Your task to perform on an android device: change the clock style Image 0: 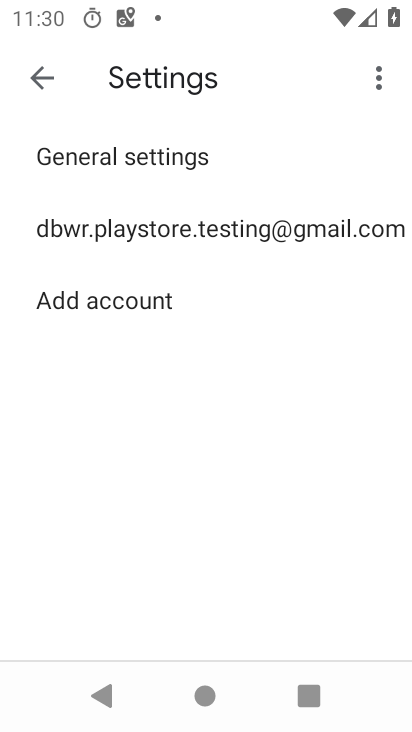
Step 0: press home button
Your task to perform on an android device: change the clock style Image 1: 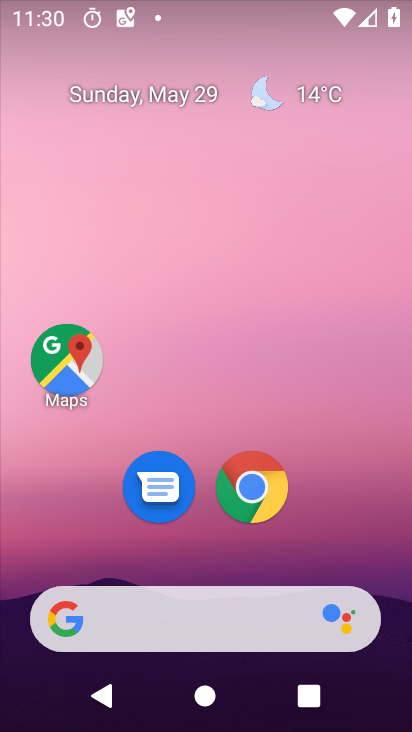
Step 1: drag from (396, 688) to (371, 164)
Your task to perform on an android device: change the clock style Image 2: 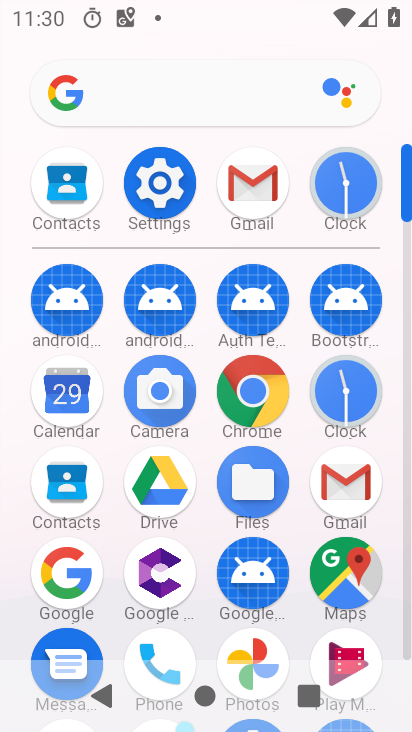
Step 2: click (321, 399)
Your task to perform on an android device: change the clock style Image 3: 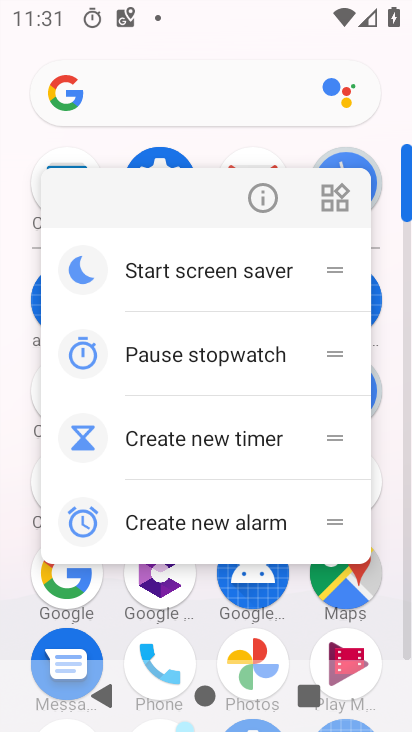
Step 3: press back button
Your task to perform on an android device: change the clock style Image 4: 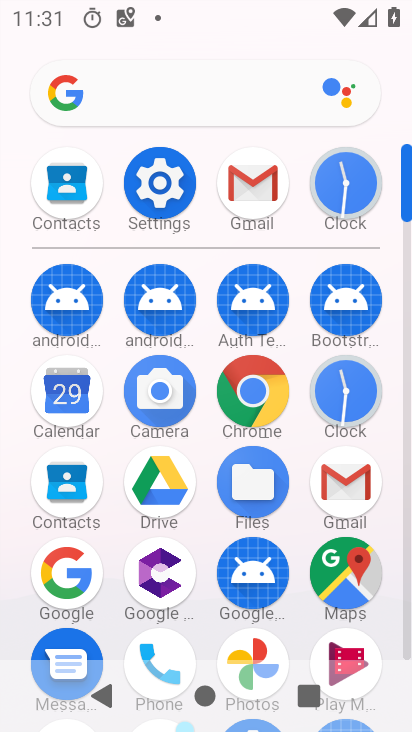
Step 4: click (353, 390)
Your task to perform on an android device: change the clock style Image 5: 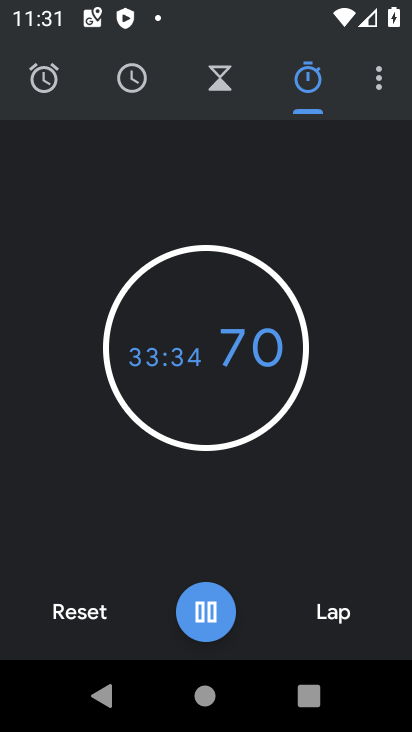
Step 5: click (371, 75)
Your task to perform on an android device: change the clock style Image 6: 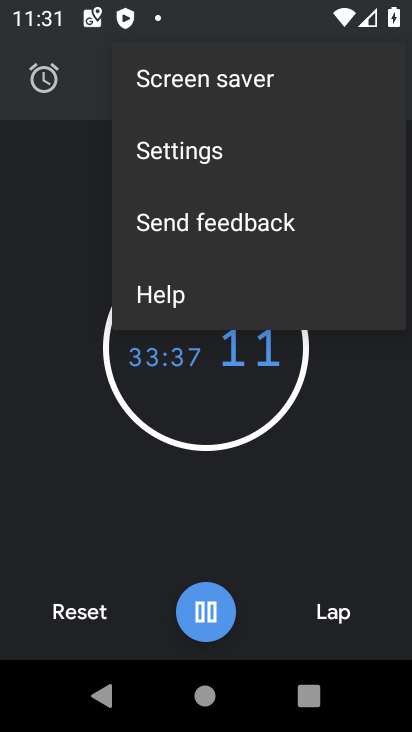
Step 6: click (177, 151)
Your task to perform on an android device: change the clock style Image 7: 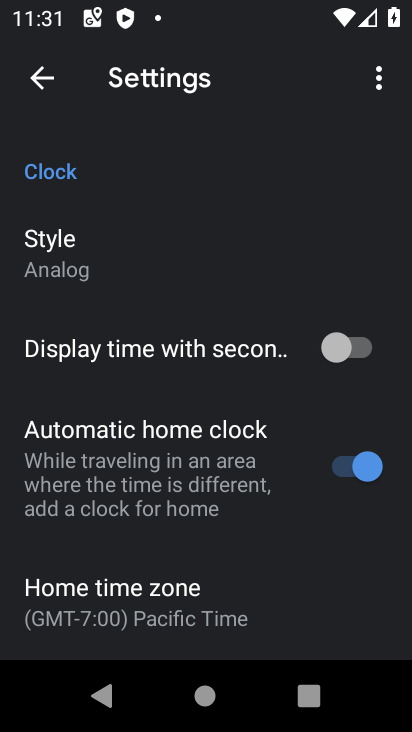
Step 7: drag from (281, 575) to (298, 232)
Your task to perform on an android device: change the clock style Image 8: 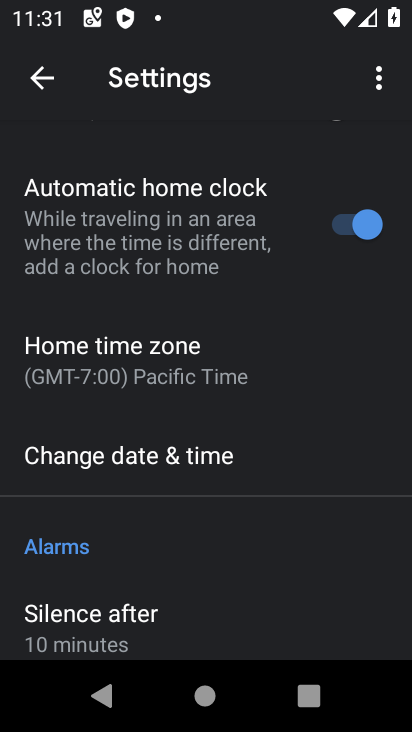
Step 8: drag from (243, 572) to (248, 351)
Your task to perform on an android device: change the clock style Image 9: 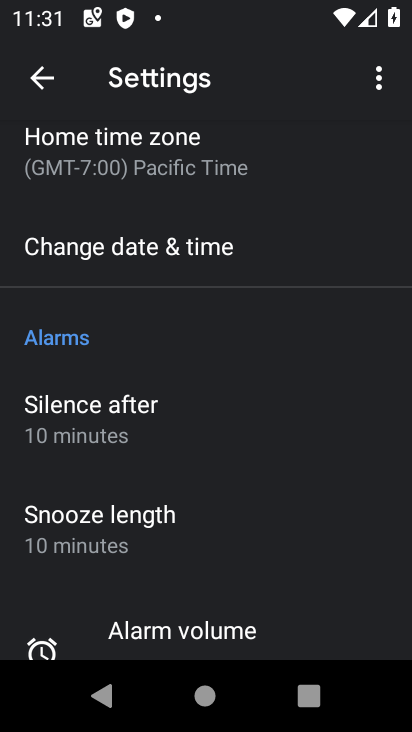
Step 9: drag from (263, 152) to (282, 600)
Your task to perform on an android device: change the clock style Image 10: 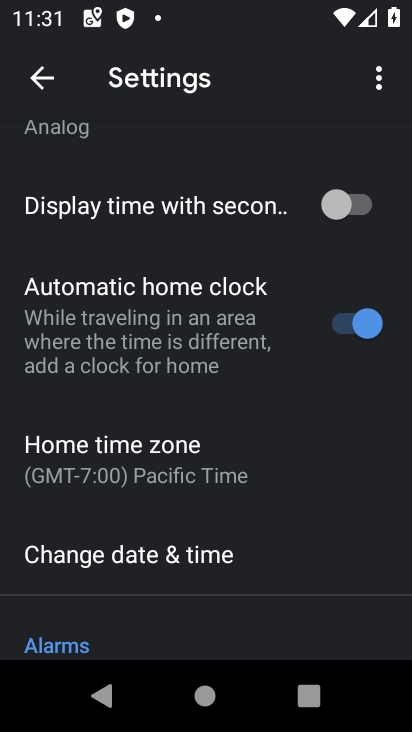
Step 10: drag from (269, 138) to (293, 566)
Your task to perform on an android device: change the clock style Image 11: 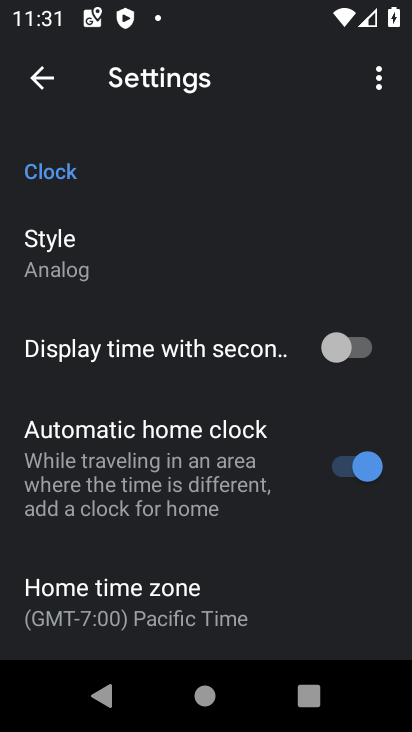
Step 11: drag from (257, 243) to (252, 529)
Your task to perform on an android device: change the clock style Image 12: 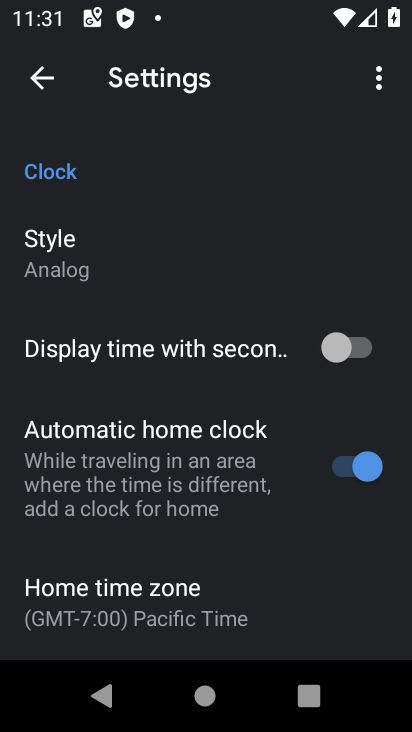
Step 12: click (83, 259)
Your task to perform on an android device: change the clock style Image 13: 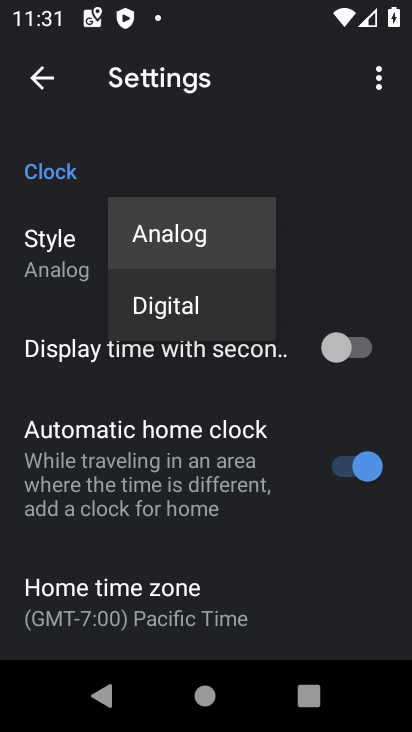
Step 13: click (169, 308)
Your task to perform on an android device: change the clock style Image 14: 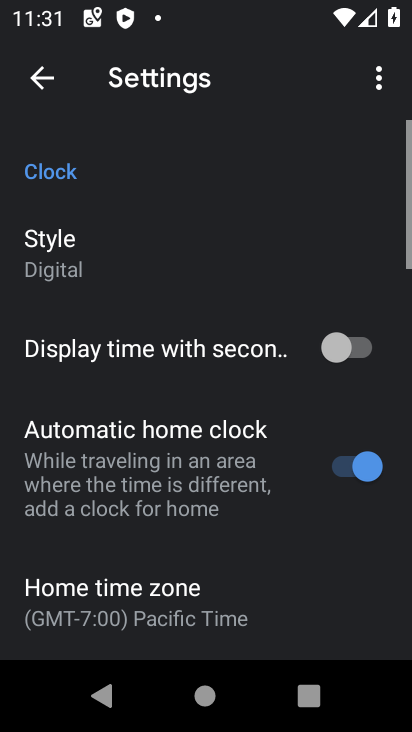
Step 14: task complete